Your task to perform on an android device: Go to Maps Image 0: 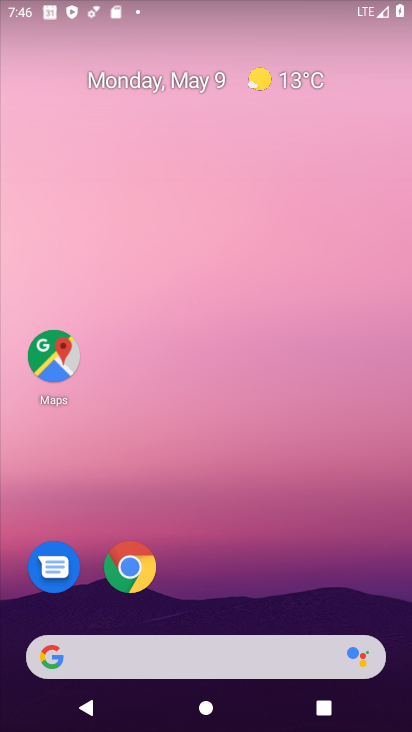
Step 0: click (55, 357)
Your task to perform on an android device: Go to Maps Image 1: 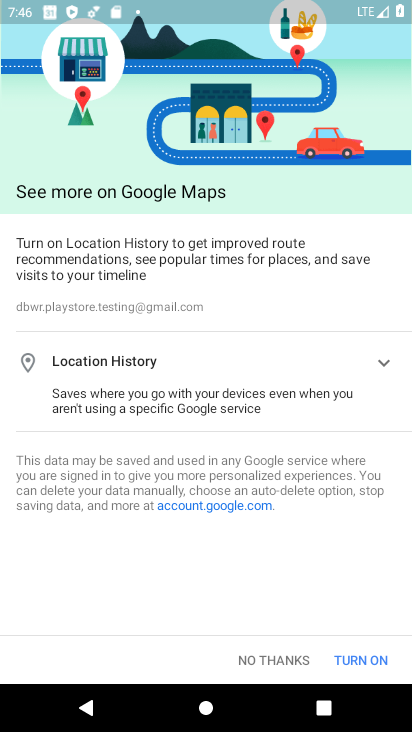
Step 1: click (274, 661)
Your task to perform on an android device: Go to Maps Image 2: 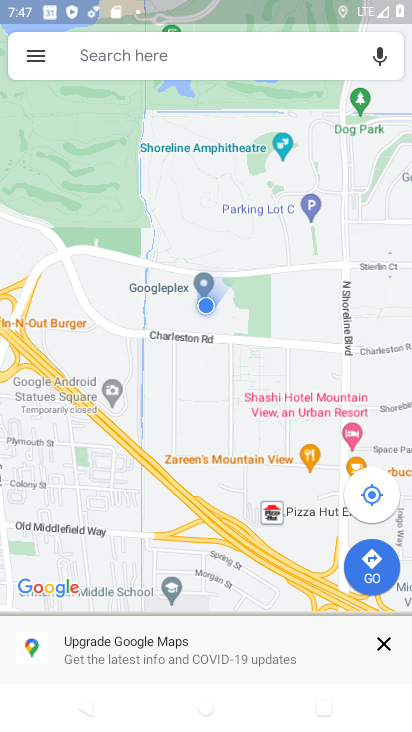
Step 2: task complete